Your task to perform on an android device: Empty the shopping cart on target. Search for "usb-a to usb-b" on target, select the first entry, add it to the cart, then select checkout. Image 0: 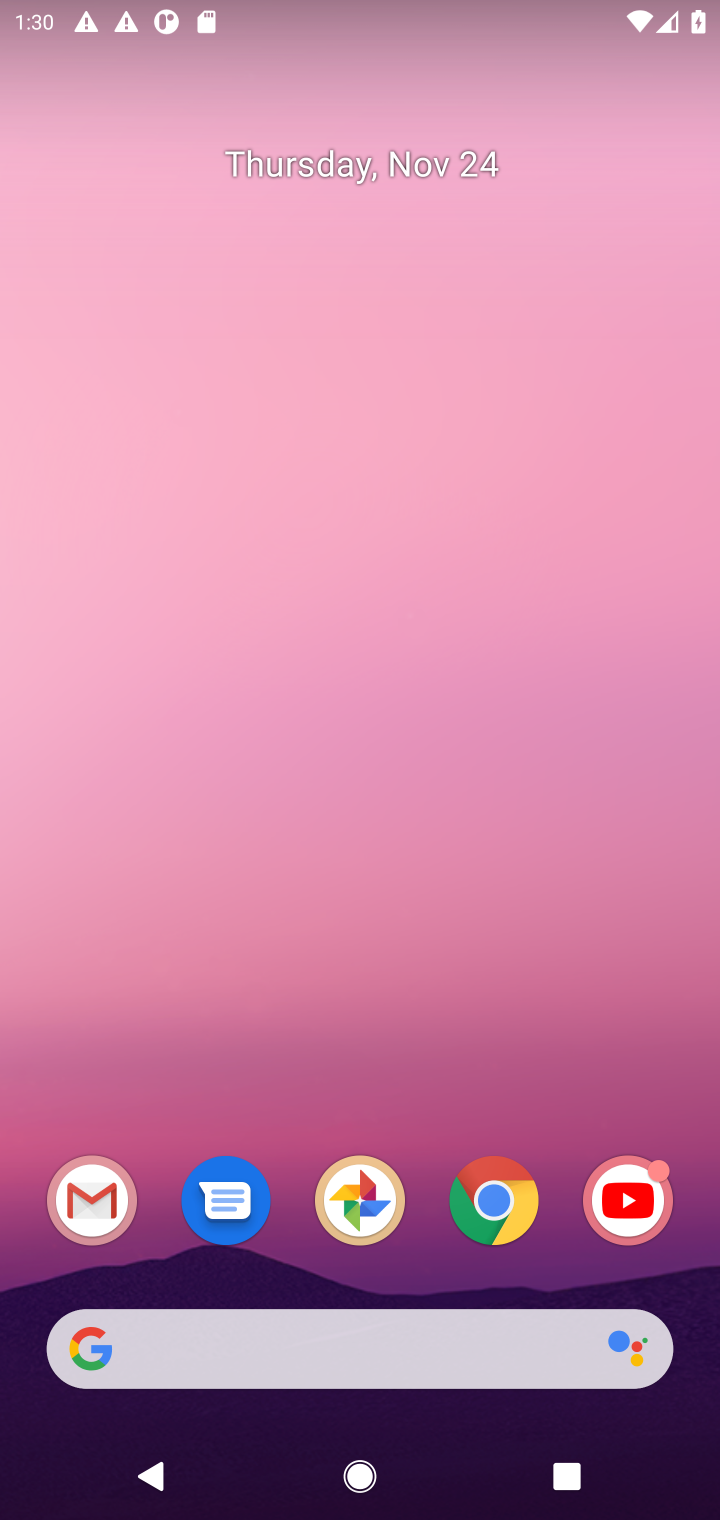
Step 0: click (456, 1320)
Your task to perform on an android device: Empty the shopping cart on target. Search for "usb-a to usb-b" on target, select the first entry, add it to the cart, then select checkout. Image 1: 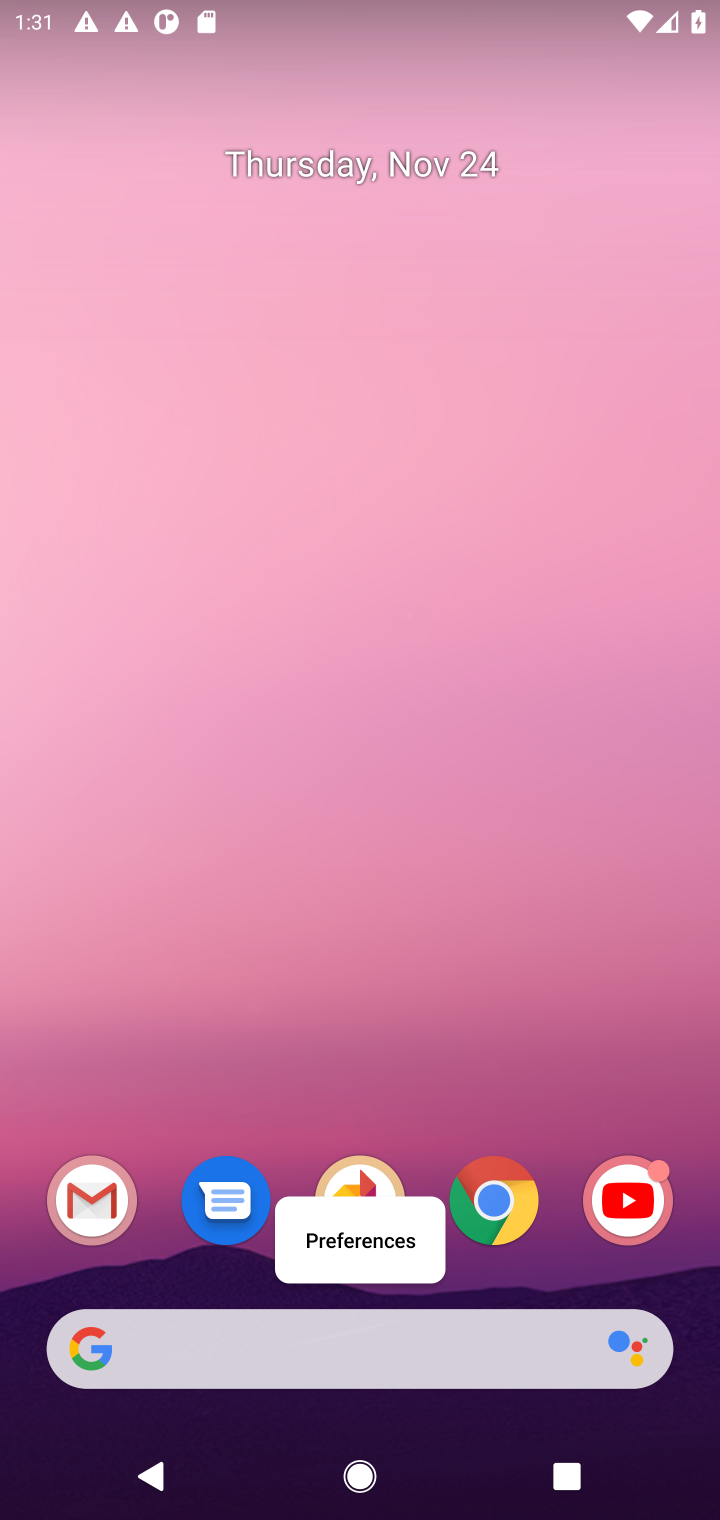
Step 1: click (336, 1322)
Your task to perform on an android device: Empty the shopping cart on target. Search for "usb-a to usb-b" on target, select the first entry, add it to the cart, then select checkout. Image 2: 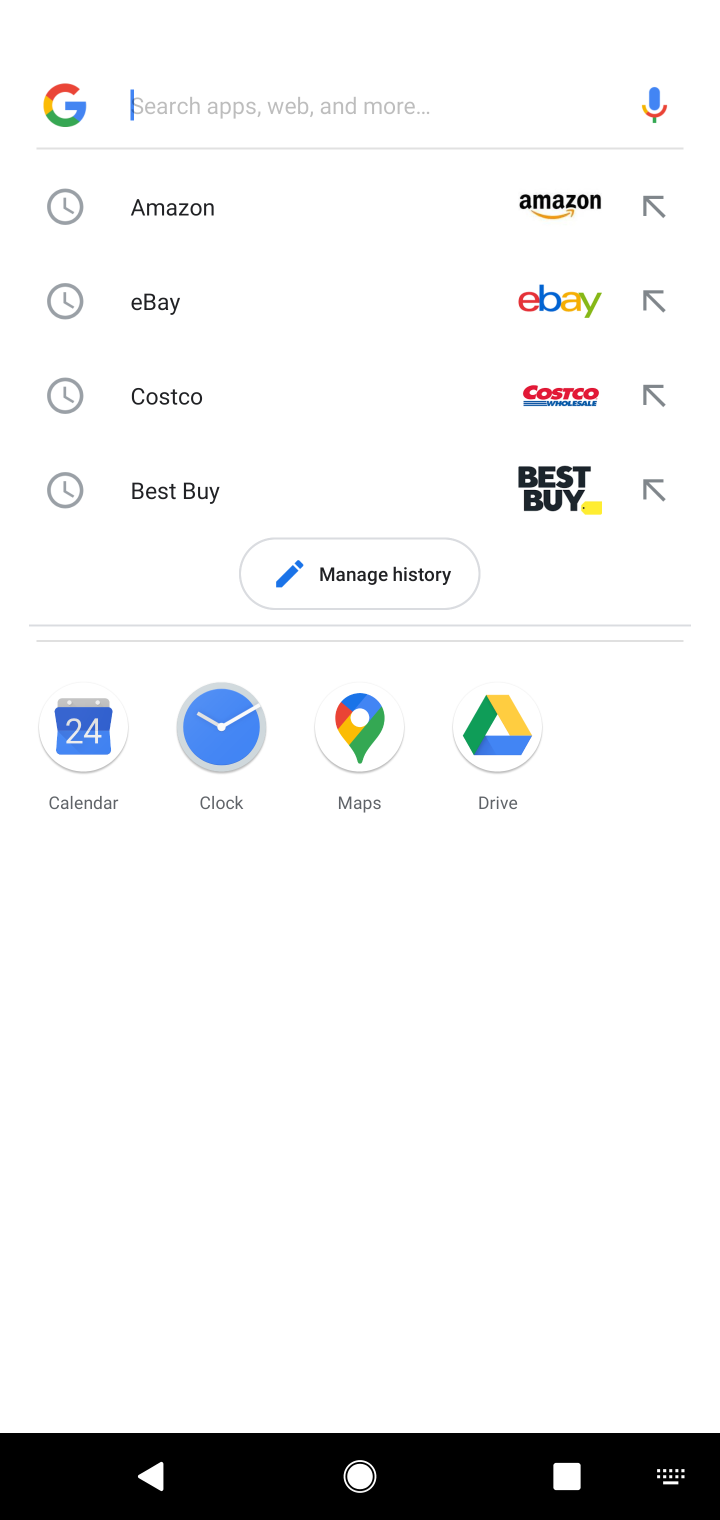
Step 2: type "target"
Your task to perform on an android device: Empty the shopping cart on target. Search for "usb-a to usb-b" on target, select the first entry, add it to the cart, then select checkout. Image 3: 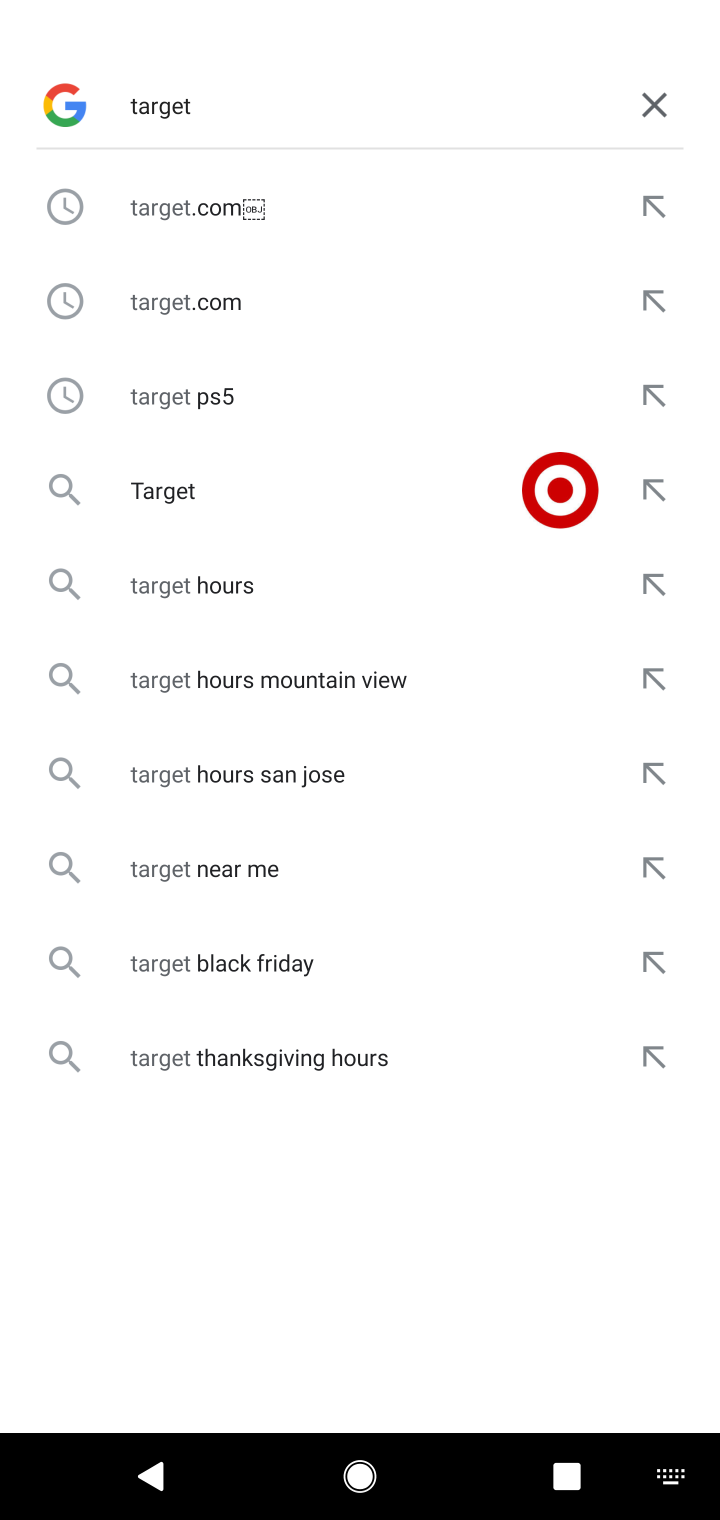
Step 3: click (269, 499)
Your task to perform on an android device: Empty the shopping cart on target. Search for "usb-a to usb-b" on target, select the first entry, add it to the cart, then select checkout. Image 4: 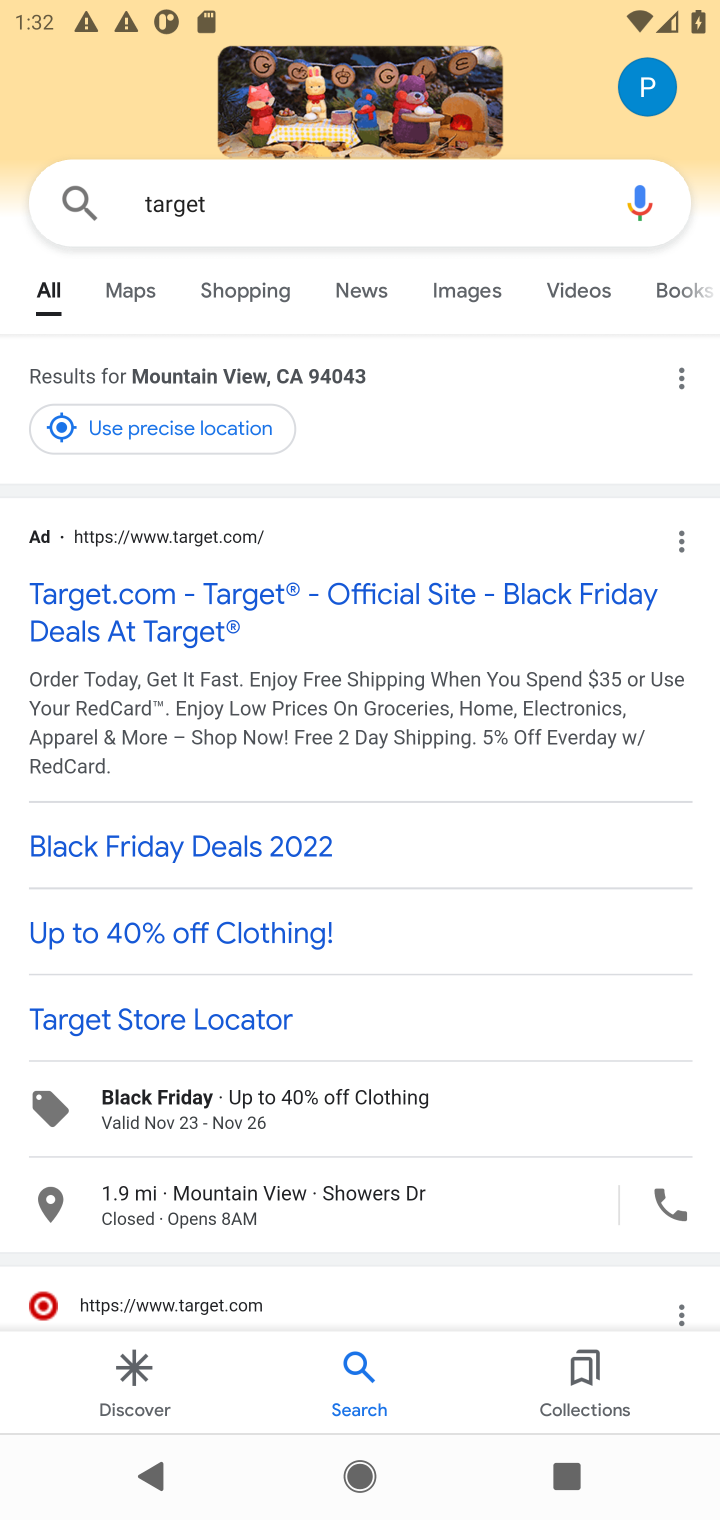
Step 4: click (284, 578)
Your task to perform on an android device: Empty the shopping cart on target. Search for "usb-a to usb-b" on target, select the first entry, add it to the cart, then select checkout. Image 5: 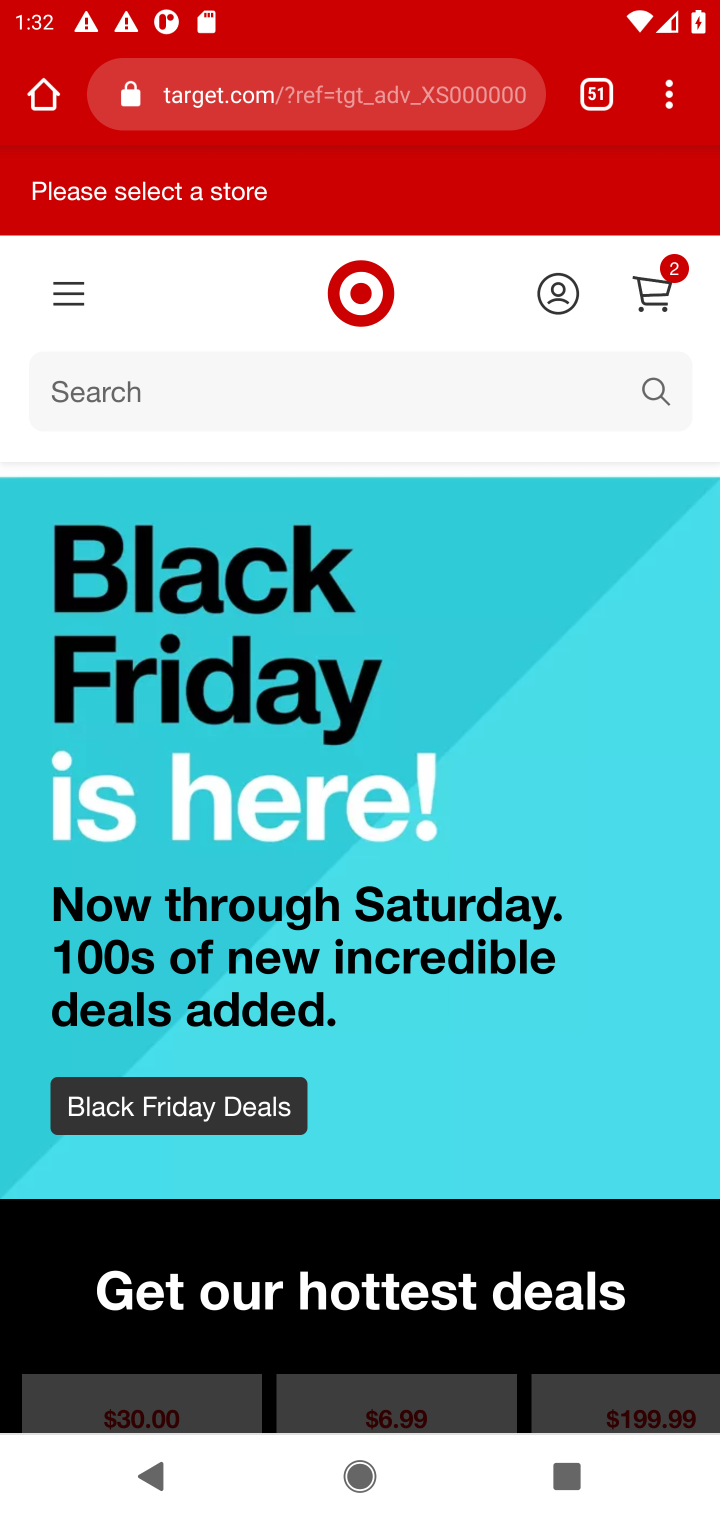
Step 5: click (373, 367)
Your task to perform on an android device: Empty the shopping cart on target. Search for "usb-a to usb-b" on target, select the first entry, add it to the cart, then select checkout. Image 6: 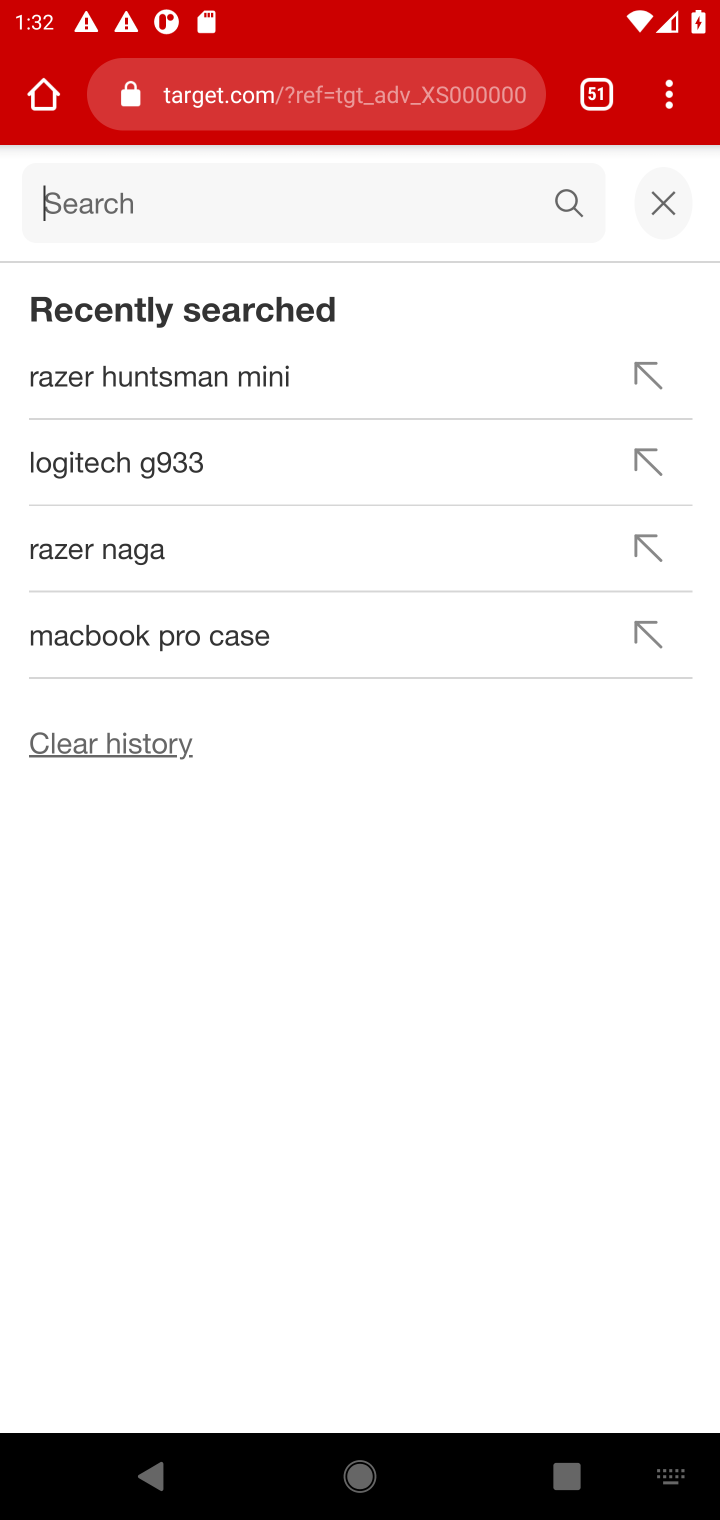
Step 6: type "usb-a to usb-b"
Your task to perform on an android device: Empty the shopping cart on target. Search for "usb-a to usb-b" on target, select the first entry, add it to the cart, then select checkout. Image 7: 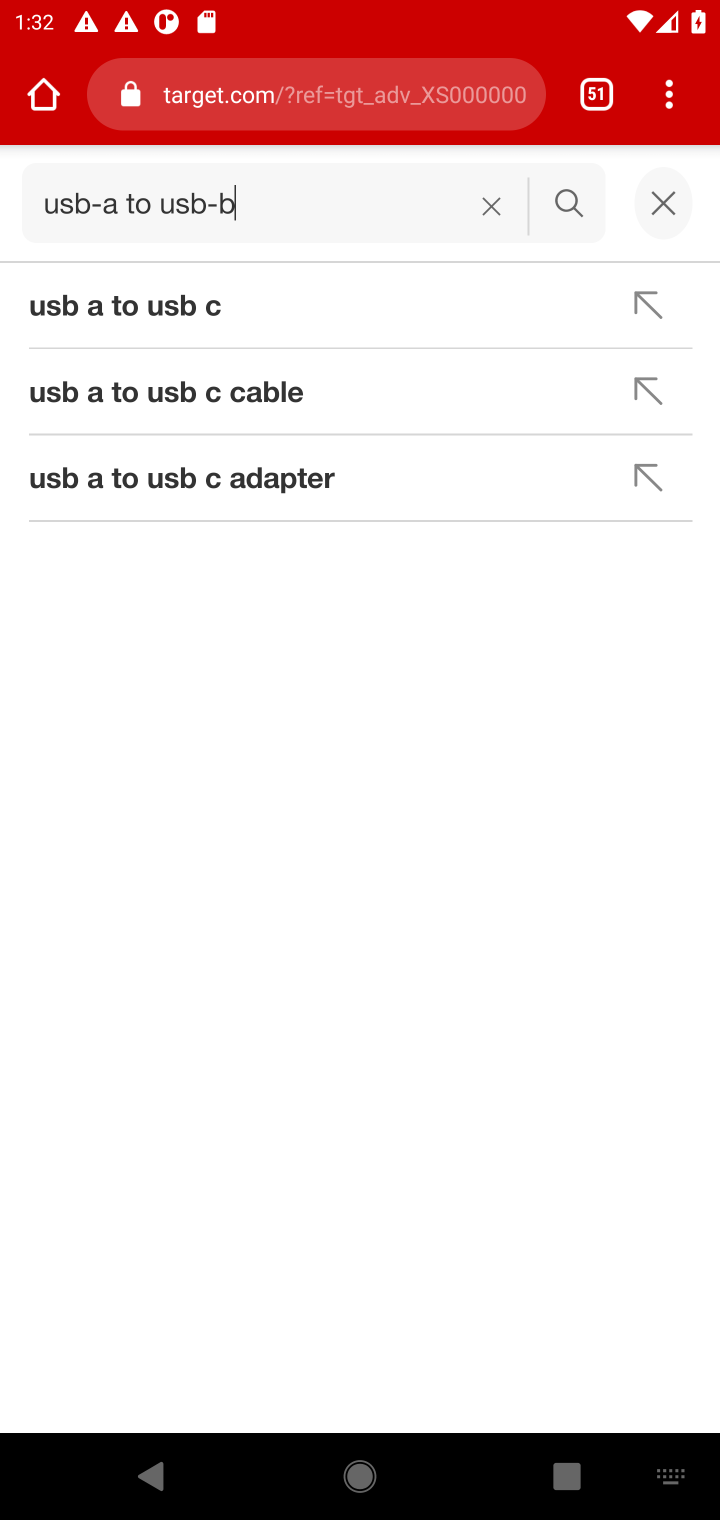
Step 7: click (575, 204)
Your task to perform on an android device: Empty the shopping cart on target. Search for "usb-a to usb-b" on target, select the first entry, add it to the cart, then select checkout. Image 8: 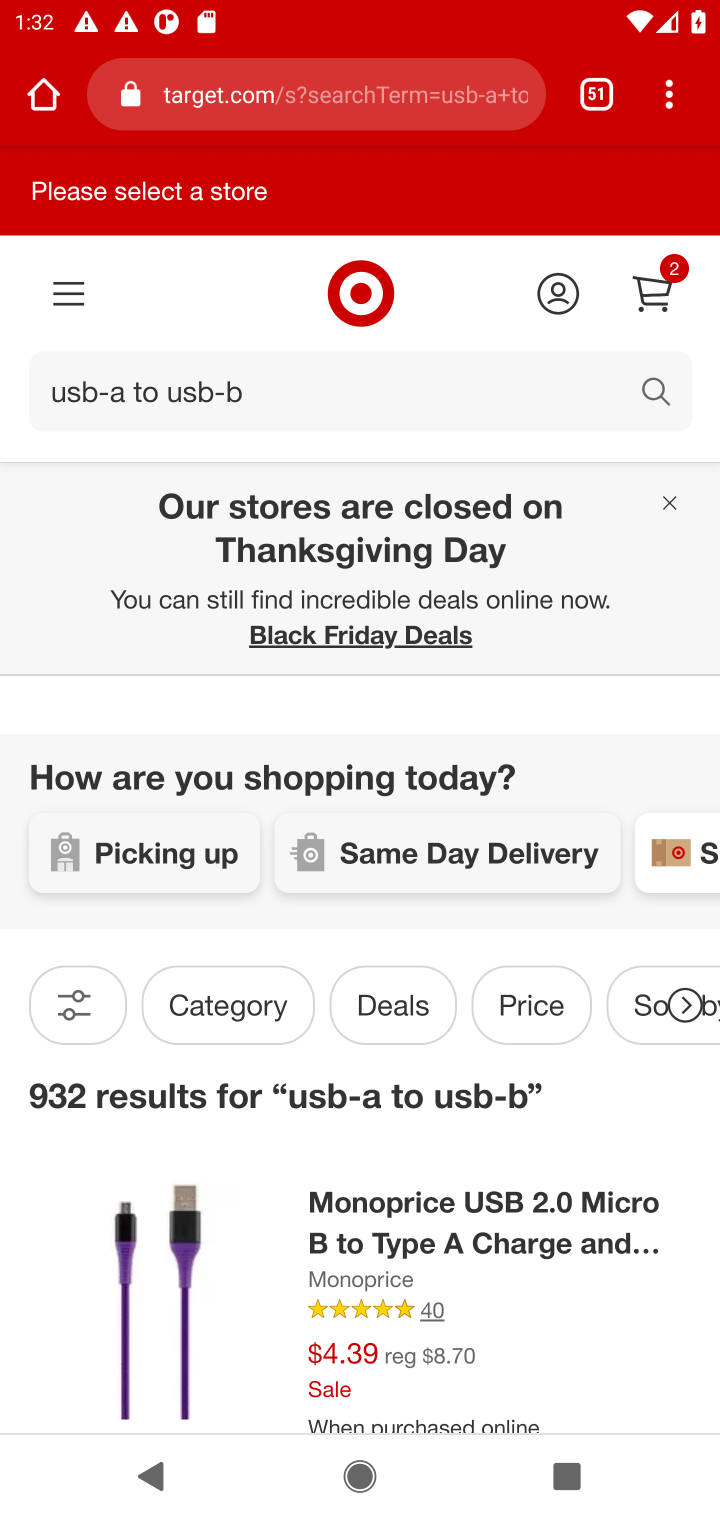
Step 8: click (255, 1332)
Your task to perform on an android device: Empty the shopping cart on target. Search for "usb-a to usb-b" on target, select the first entry, add it to the cart, then select checkout. Image 9: 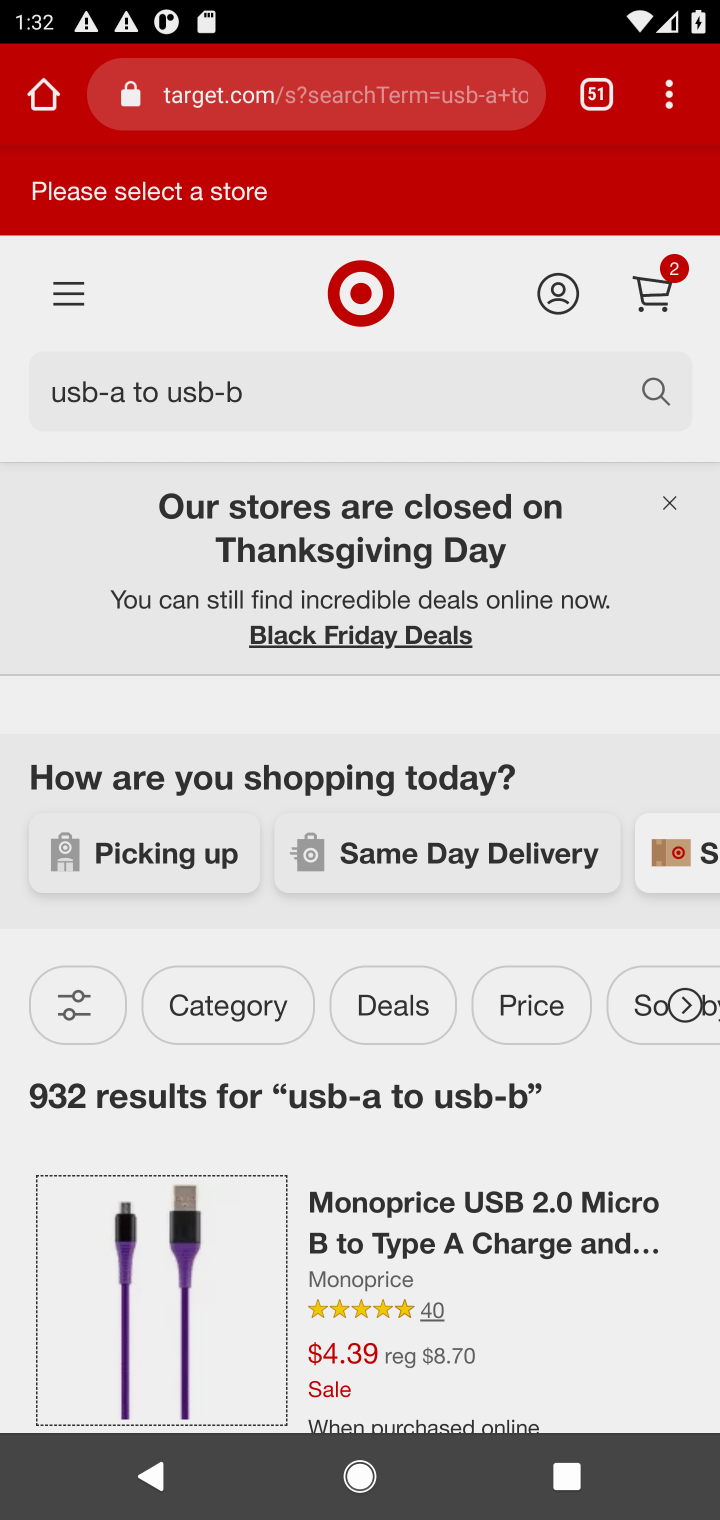
Step 9: drag from (255, 1332) to (267, 923)
Your task to perform on an android device: Empty the shopping cart on target. Search for "usb-a to usb-b" on target, select the first entry, add it to the cart, then select checkout. Image 10: 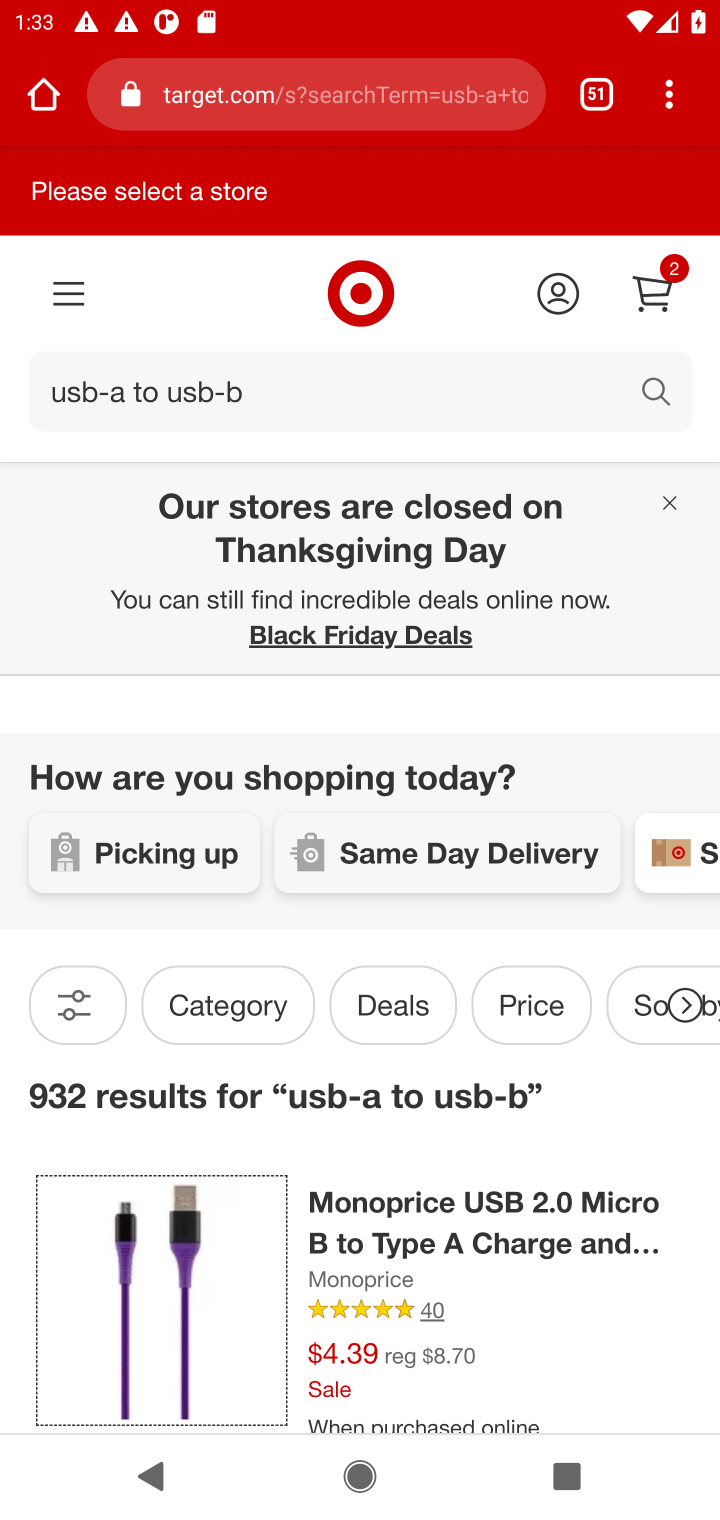
Step 10: drag from (646, 1287) to (665, 601)
Your task to perform on an android device: Empty the shopping cart on target. Search for "usb-a to usb-b" on target, select the first entry, add it to the cart, then select checkout. Image 11: 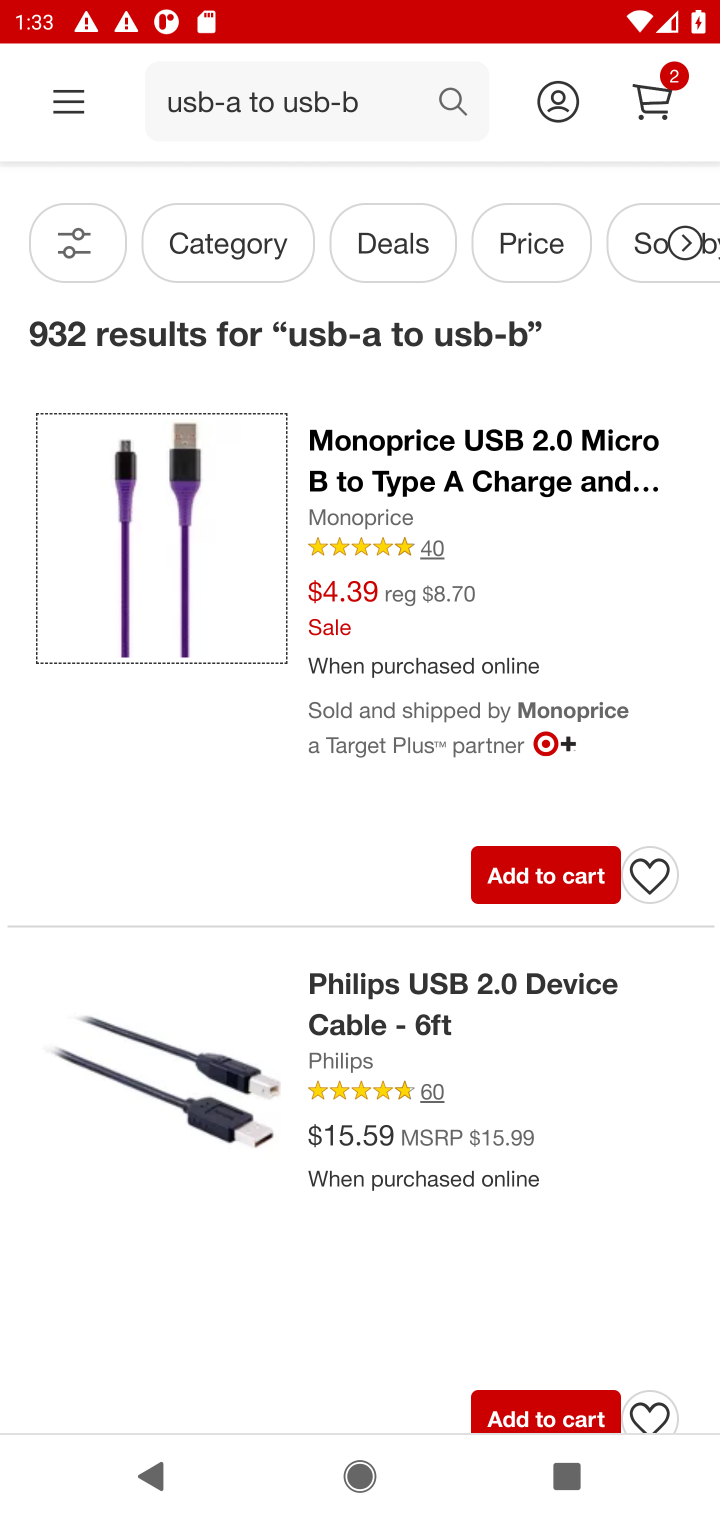
Step 11: click (564, 1036)
Your task to perform on an android device: Empty the shopping cart on target. Search for "usb-a to usb-b" on target, select the first entry, add it to the cart, then select checkout. Image 12: 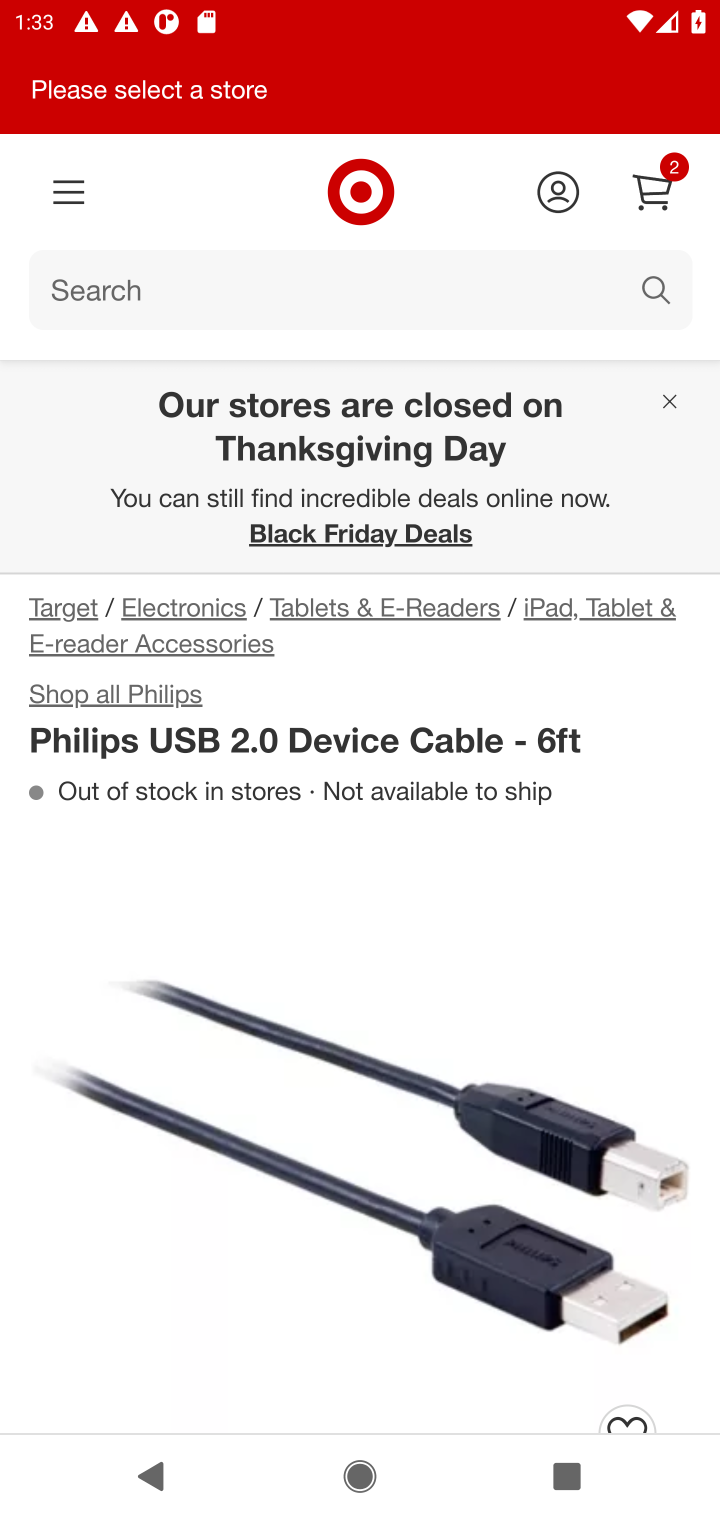
Step 12: task complete